Your task to perform on an android device: install app "Google Chrome" Image 0: 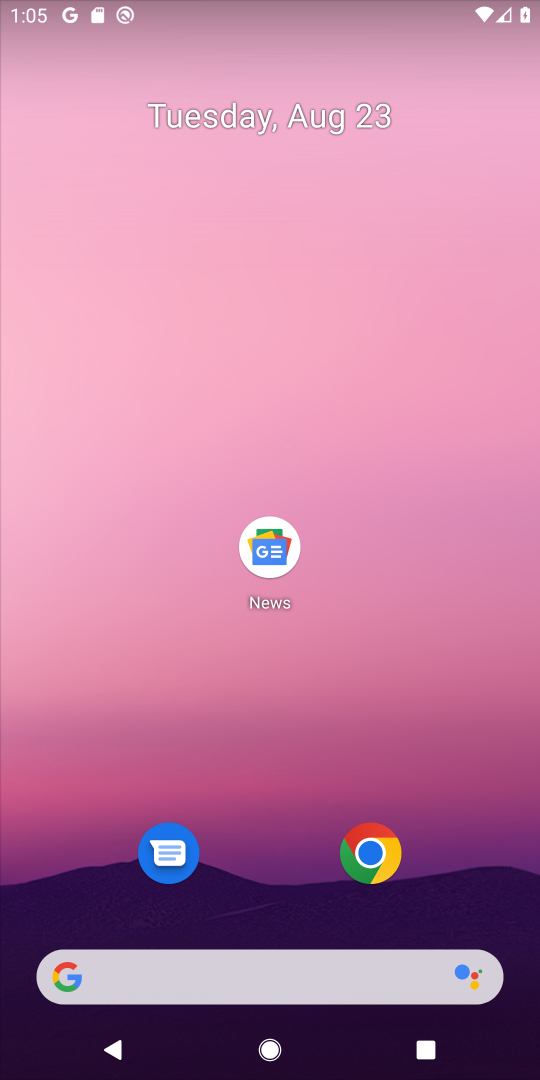
Step 0: click (369, 858)
Your task to perform on an android device: install app "Google Chrome" Image 1: 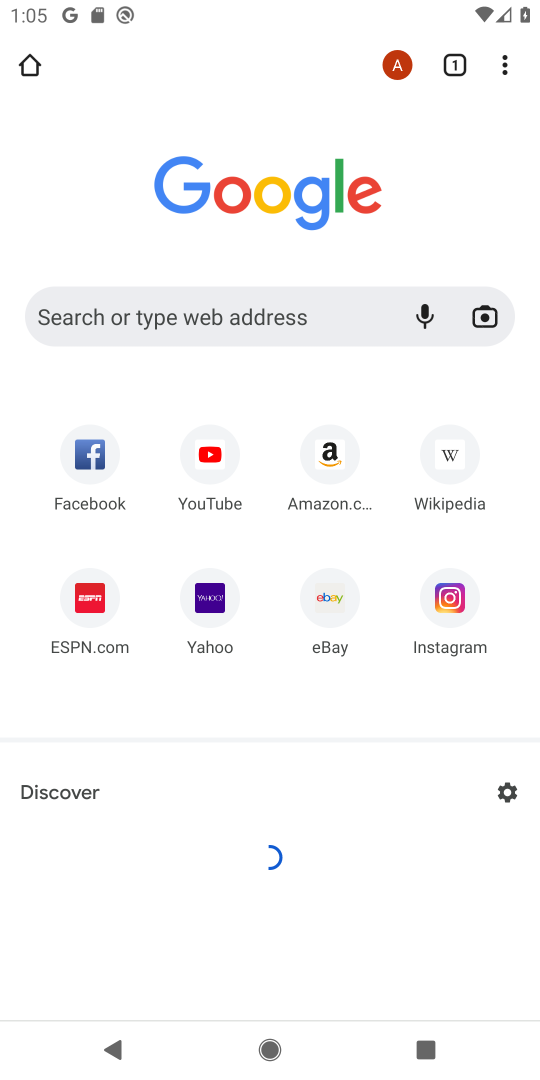
Step 1: task complete